Your task to perform on an android device: turn off picture-in-picture Image 0: 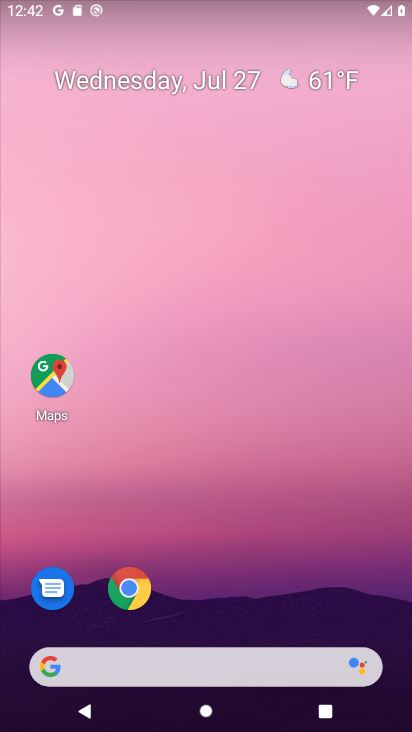
Step 0: click (127, 585)
Your task to perform on an android device: turn off picture-in-picture Image 1: 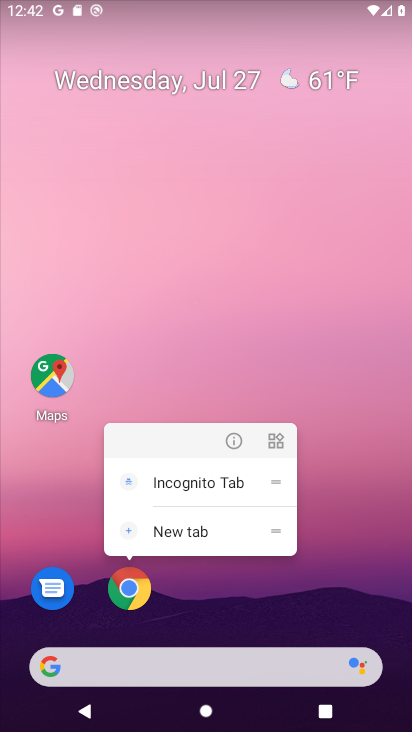
Step 1: click (234, 435)
Your task to perform on an android device: turn off picture-in-picture Image 2: 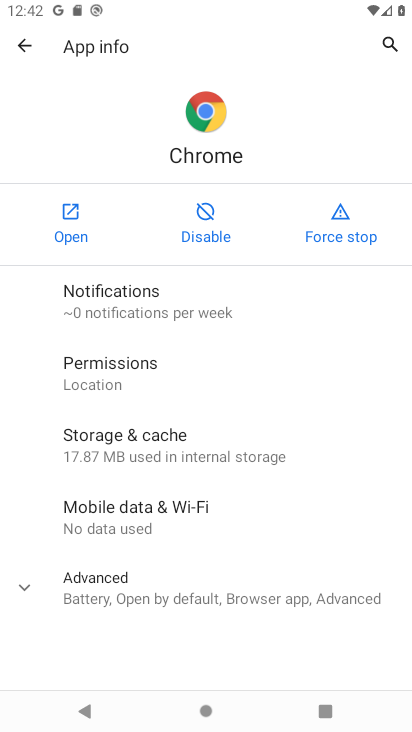
Step 2: click (27, 589)
Your task to perform on an android device: turn off picture-in-picture Image 3: 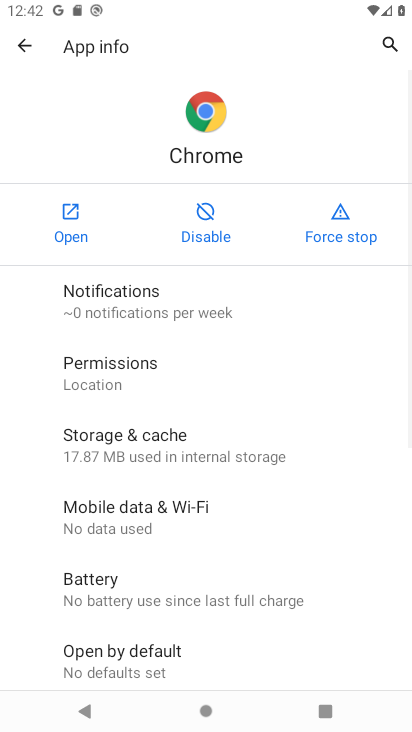
Step 3: drag from (300, 639) to (305, 279)
Your task to perform on an android device: turn off picture-in-picture Image 4: 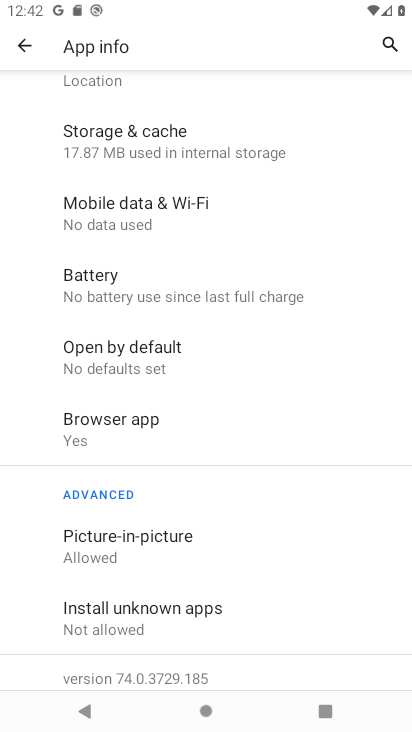
Step 4: click (103, 554)
Your task to perform on an android device: turn off picture-in-picture Image 5: 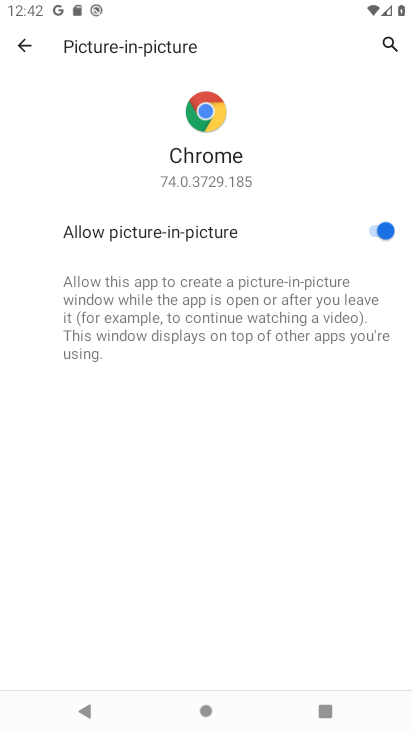
Step 5: click (377, 234)
Your task to perform on an android device: turn off picture-in-picture Image 6: 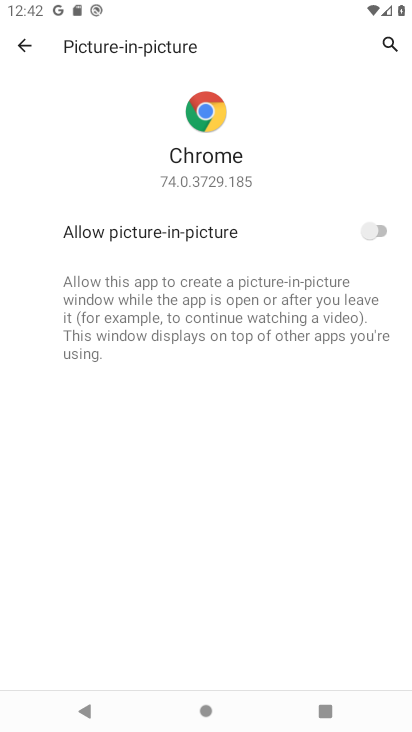
Step 6: task complete